Your task to perform on an android device: install app "PUBG MOBILE" Image 0: 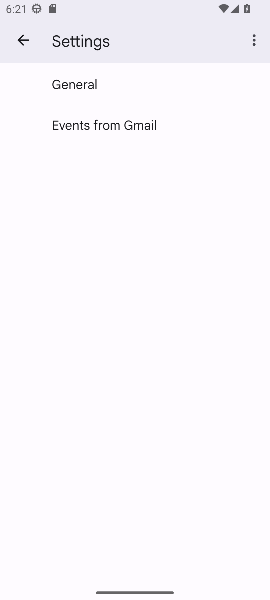
Step 0: press home button
Your task to perform on an android device: install app "PUBG MOBILE" Image 1: 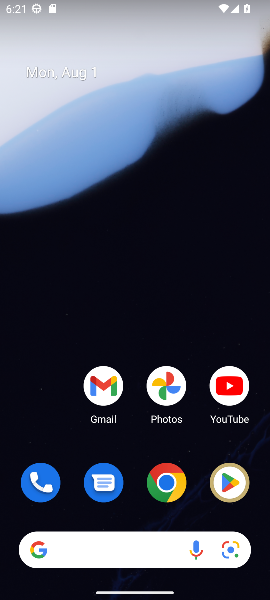
Step 1: click (236, 487)
Your task to perform on an android device: install app "PUBG MOBILE" Image 2: 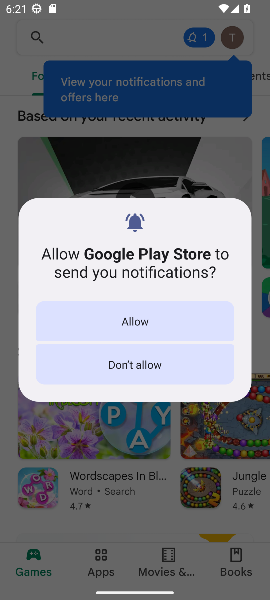
Step 2: click (169, 318)
Your task to perform on an android device: install app "PUBG MOBILE" Image 3: 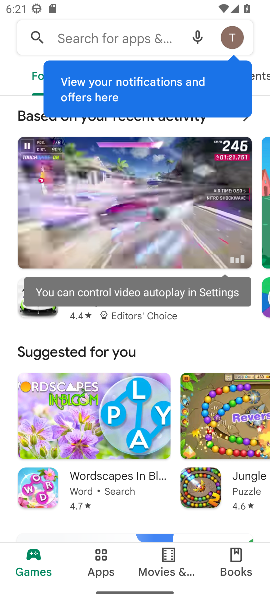
Step 3: click (130, 33)
Your task to perform on an android device: install app "PUBG MOBILE" Image 4: 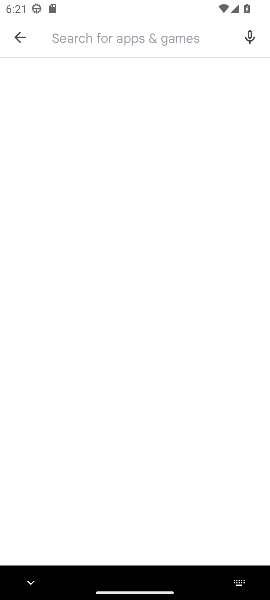
Step 4: type "pubg mobile"
Your task to perform on an android device: install app "PUBG MOBILE" Image 5: 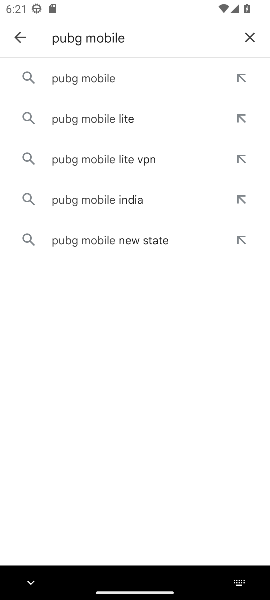
Step 5: click (80, 73)
Your task to perform on an android device: install app "PUBG MOBILE" Image 6: 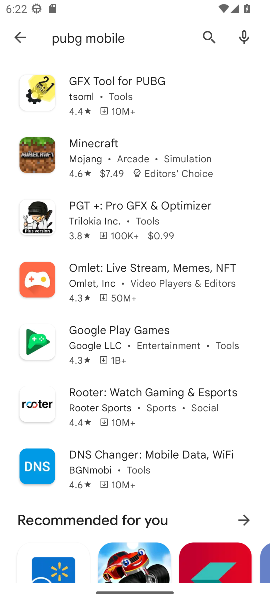
Step 6: task complete